Your task to perform on an android device: turn on bluetooth scan Image 0: 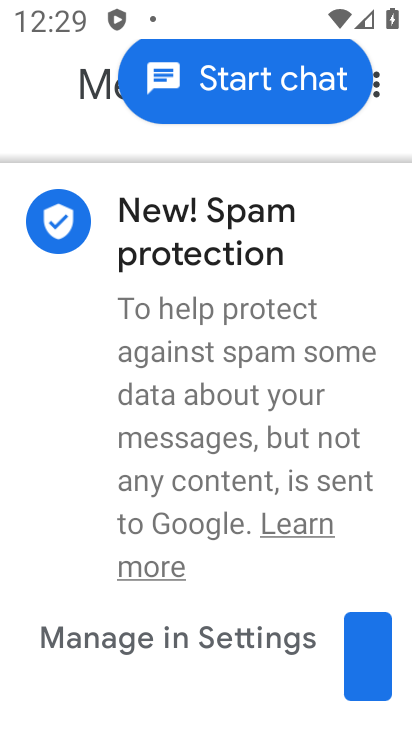
Step 0: press home button
Your task to perform on an android device: turn on bluetooth scan Image 1: 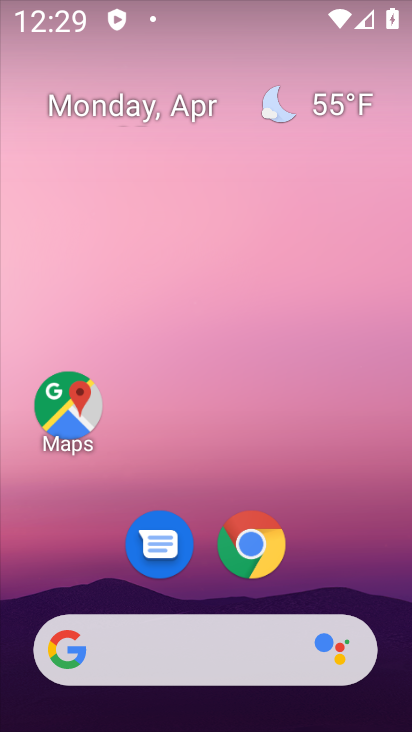
Step 1: drag from (326, 495) to (119, 84)
Your task to perform on an android device: turn on bluetooth scan Image 2: 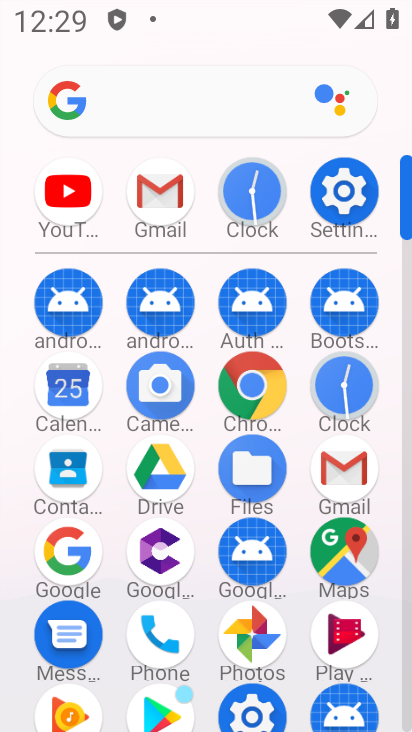
Step 2: click (343, 201)
Your task to perform on an android device: turn on bluetooth scan Image 3: 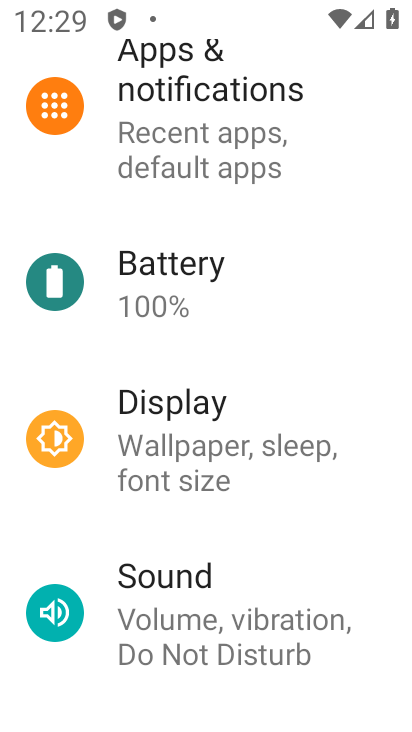
Step 3: drag from (236, 572) to (162, 111)
Your task to perform on an android device: turn on bluetooth scan Image 4: 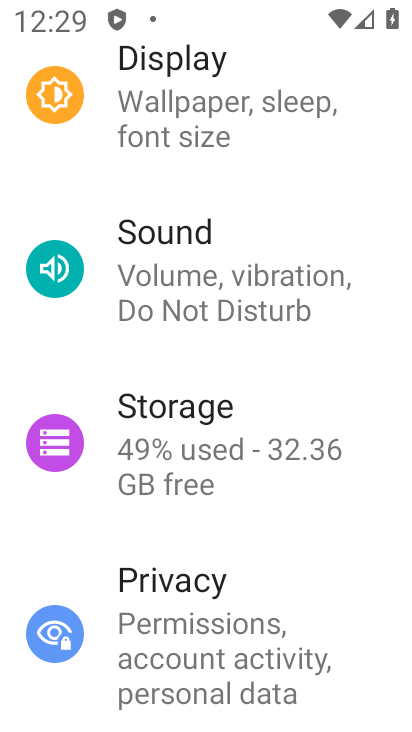
Step 4: drag from (210, 608) to (201, 135)
Your task to perform on an android device: turn on bluetooth scan Image 5: 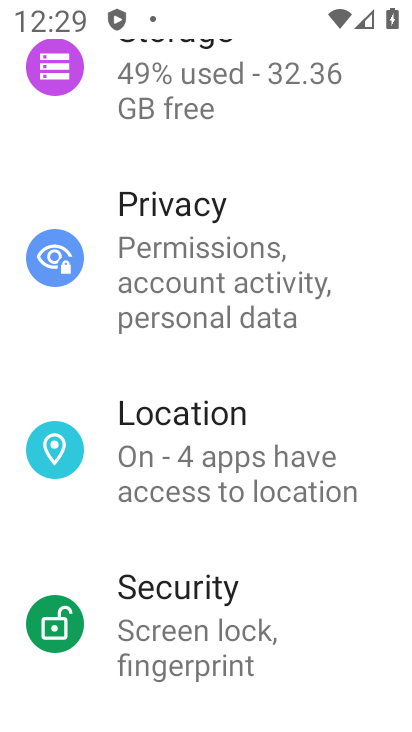
Step 5: click (208, 428)
Your task to perform on an android device: turn on bluetooth scan Image 6: 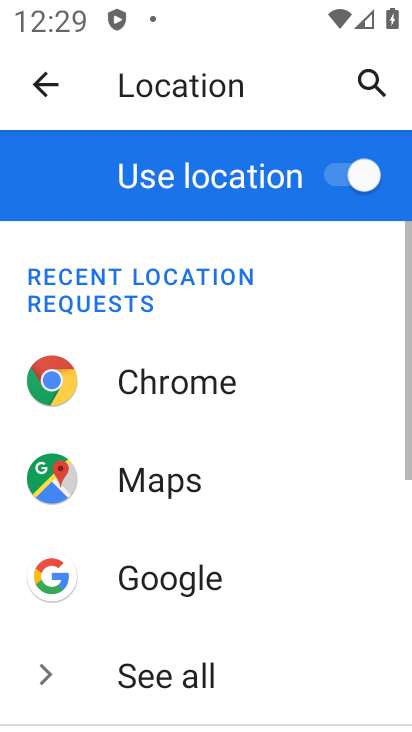
Step 6: drag from (243, 662) to (157, 89)
Your task to perform on an android device: turn on bluetooth scan Image 7: 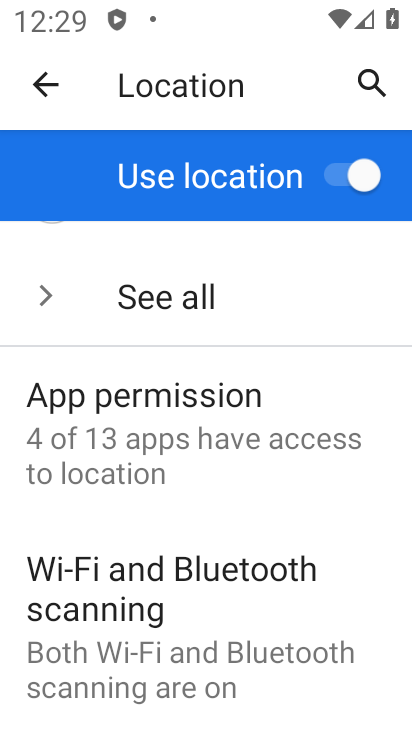
Step 7: click (150, 597)
Your task to perform on an android device: turn on bluetooth scan Image 8: 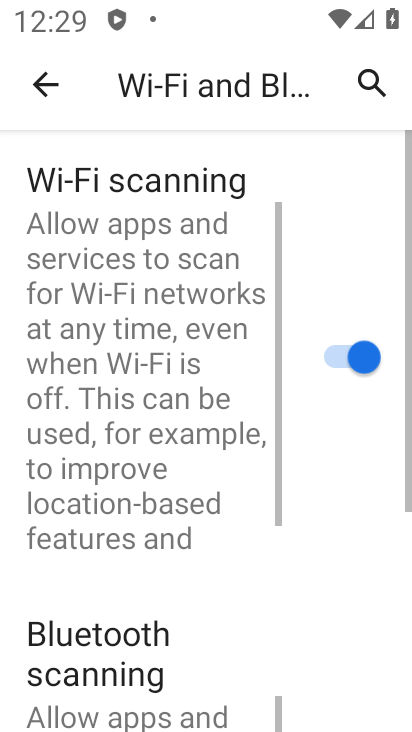
Step 8: task complete